Your task to perform on an android device: Open Maps and search for coffee Image 0: 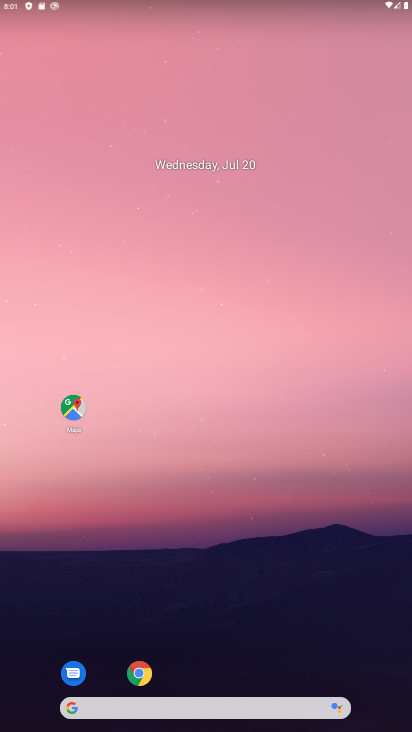
Step 0: drag from (221, 651) to (350, 101)
Your task to perform on an android device: Open Maps and search for coffee Image 1: 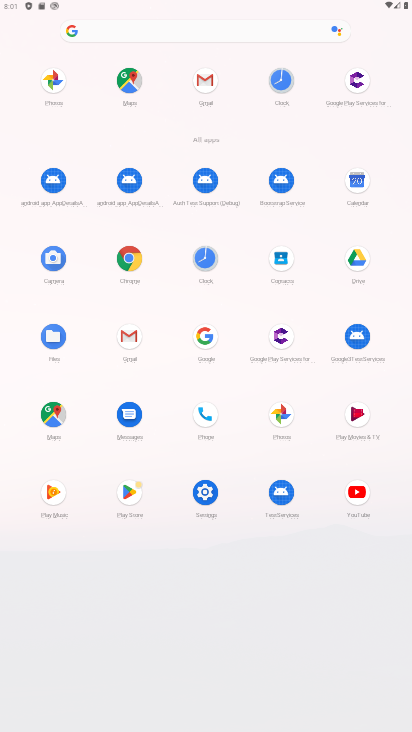
Step 1: click (64, 407)
Your task to perform on an android device: Open Maps and search for coffee Image 2: 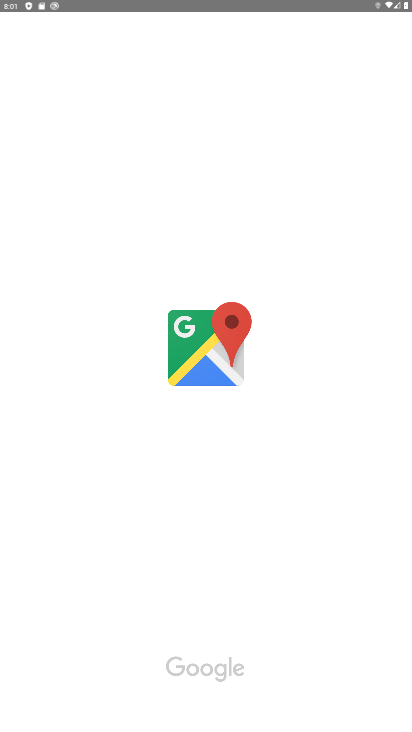
Step 2: drag from (298, 347) to (307, 293)
Your task to perform on an android device: Open Maps and search for coffee Image 3: 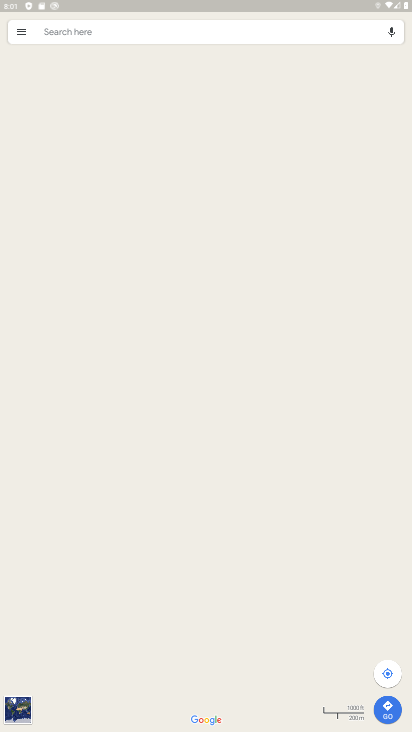
Step 3: click (86, 36)
Your task to perform on an android device: Open Maps and search for coffee Image 4: 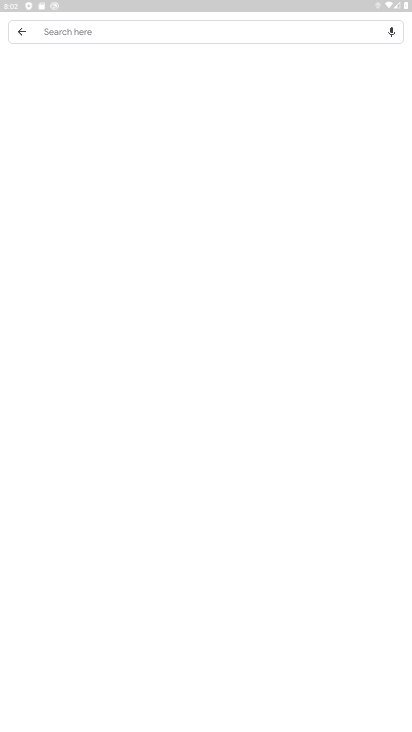
Step 4: click (81, 29)
Your task to perform on an android device: Open Maps and search for coffee Image 5: 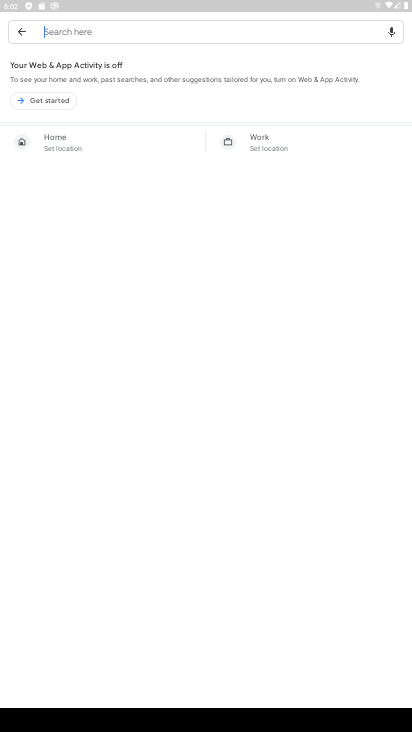
Step 5: type "coffee"
Your task to perform on an android device: Open Maps and search for coffee Image 6: 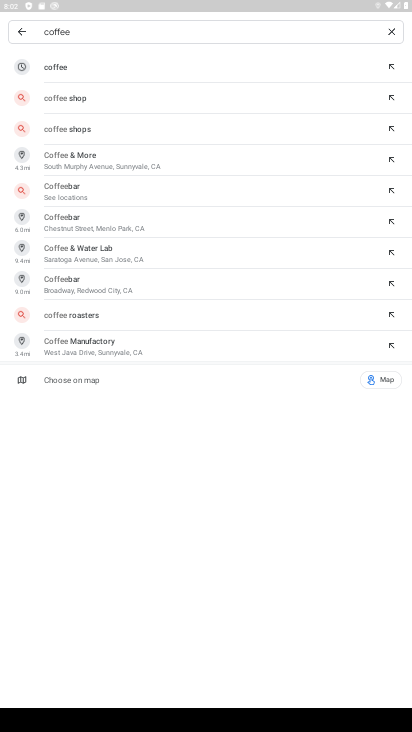
Step 6: click (95, 58)
Your task to perform on an android device: Open Maps and search for coffee Image 7: 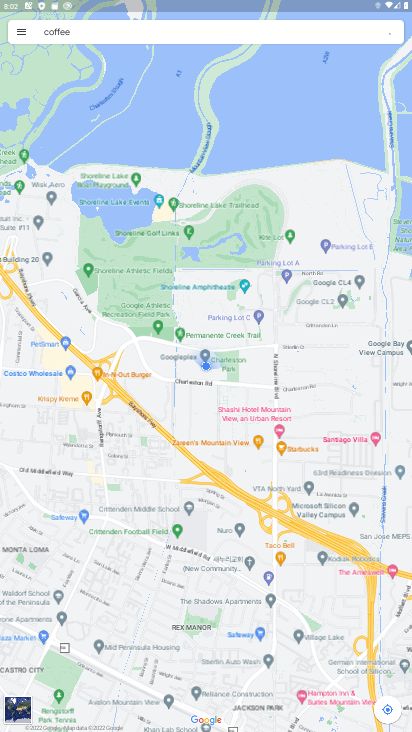
Step 7: task complete